Your task to perform on an android device: Go to Reddit.com Image 0: 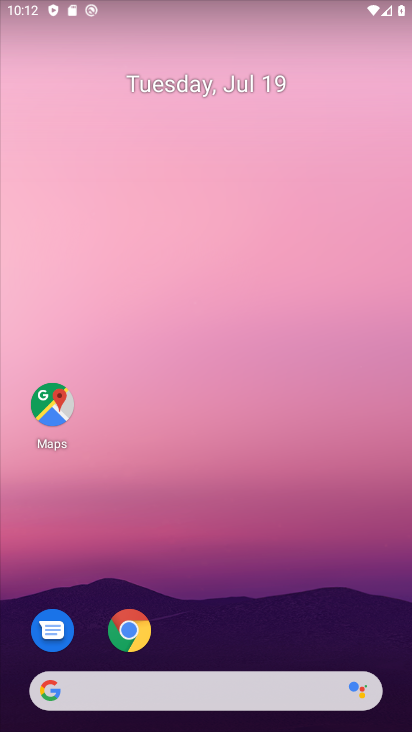
Step 0: drag from (261, 668) to (247, 59)
Your task to perform on an android device: Go to Reddit.com Image 1: 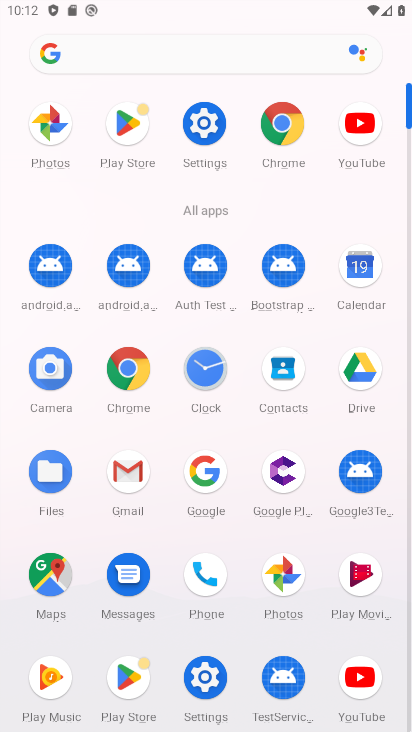
Step 1: click (197, 482)
Your task to perform on an android device: Go to Reddit.com Image 2: 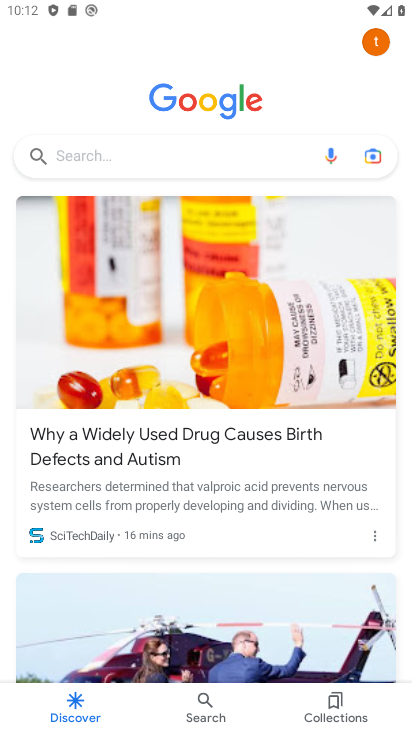
Step 2: click (127, 157)
Your task to perform on an android device: Go to Reddit.com Image 3: 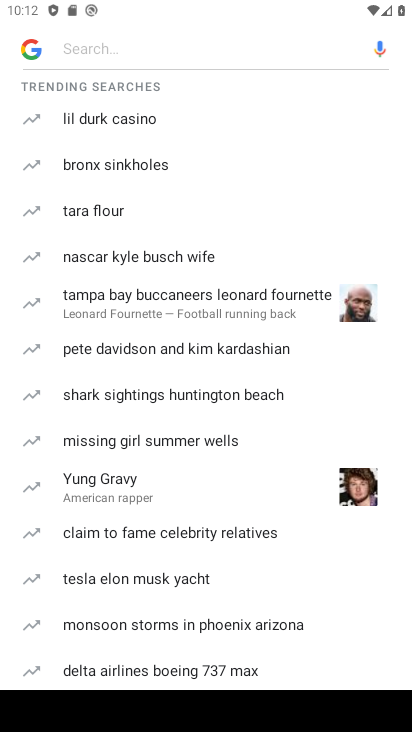
Step 3: drag from (123, 645) to (120, 202)
Your task to perform on an android device: Go to Reddit.com Image 4: 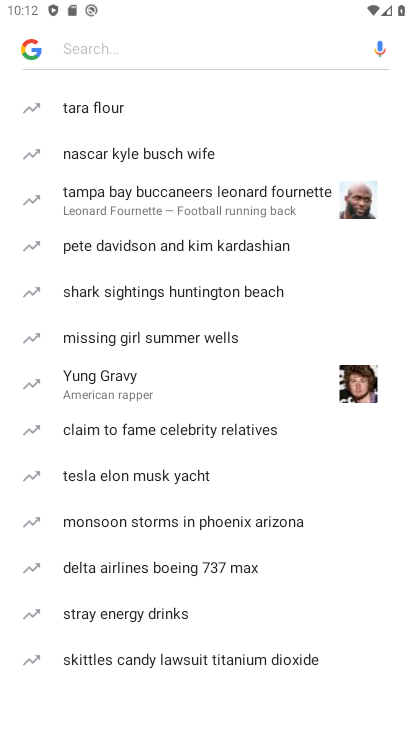
Step 4: drag from (161, 603) to (125, 221)
Your task to perform on an android device: Go to Reddit.com Image 5: 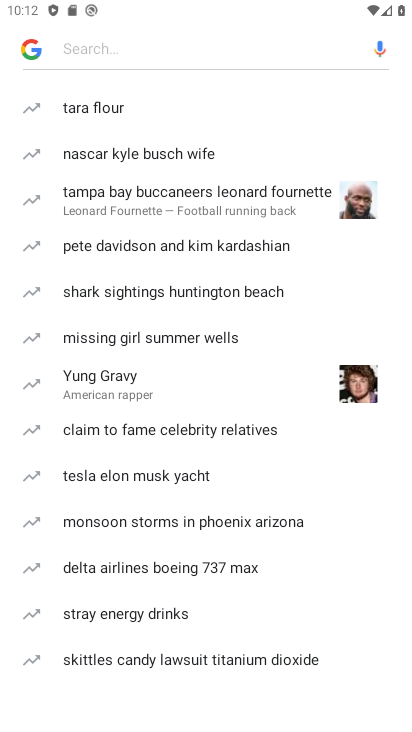
Step 5: drag from (127, 99) to (137, 510)
Your task to perform on an android device: Go to Reddit.com Image 6: 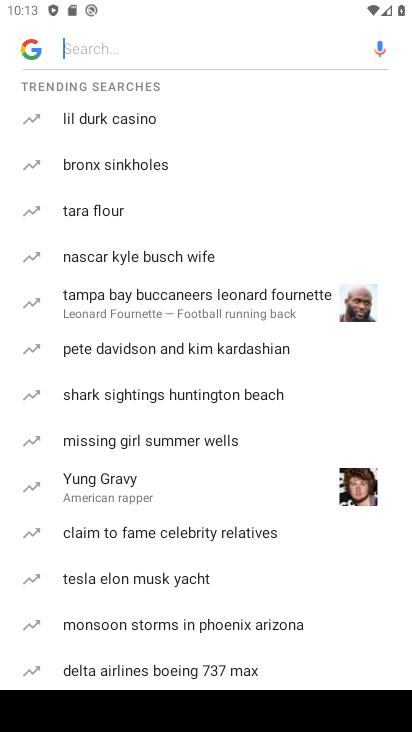
Step 6: type "Reddit.com"
Your task to perform on an android device: Go to Reddit.com Image 7: 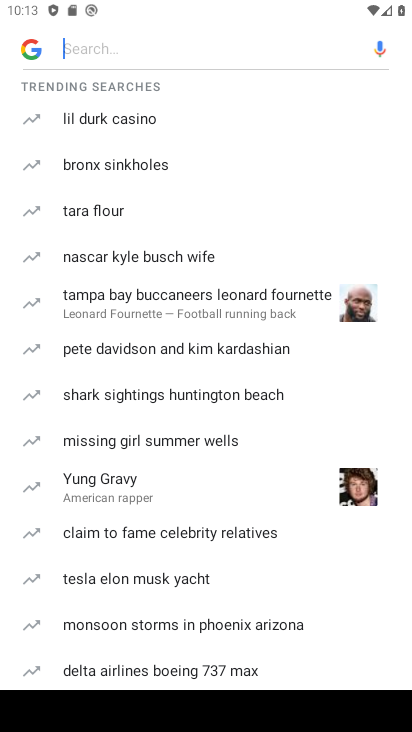
Step 7: click (78, 45)
Your task to perform on an android device: Go to Reddit.com Image 8: 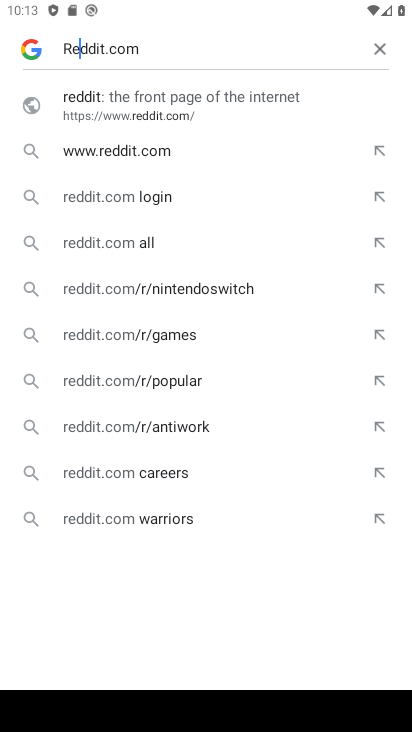
Step 8: click (101, 99)
Your task to perform on an android device: Go to Reddit.com Image 9: 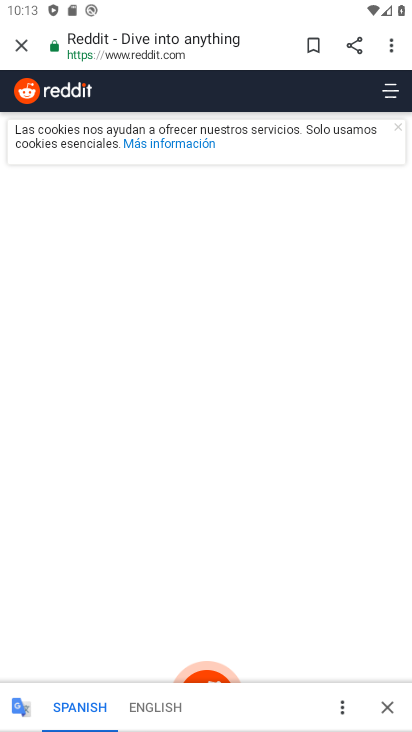
Step 9: task complete